Your task to perform on an android device: Show me popular videos on Youtube Image 0: 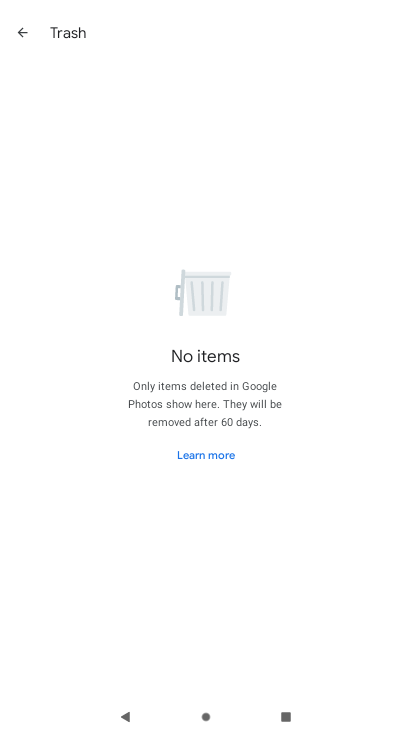
Step 0: press home button
Your task to perform on an android device: Show me popular videos on Youtube Image 1: 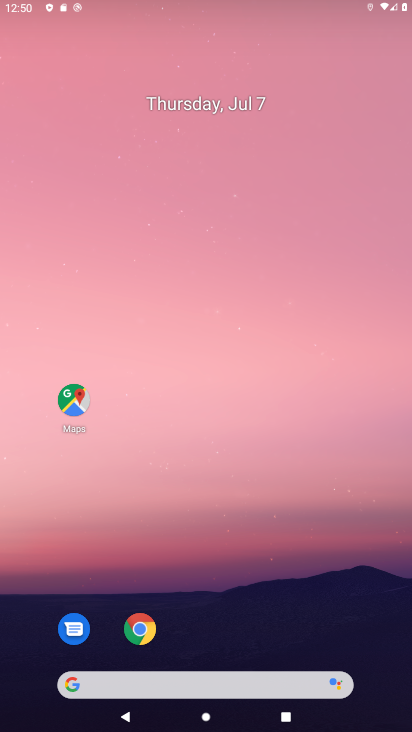
Step 1: drag from (244, 643) to (318, 109)
Your task to perform on an android device: Show me popular videos on Youtube Image 2: 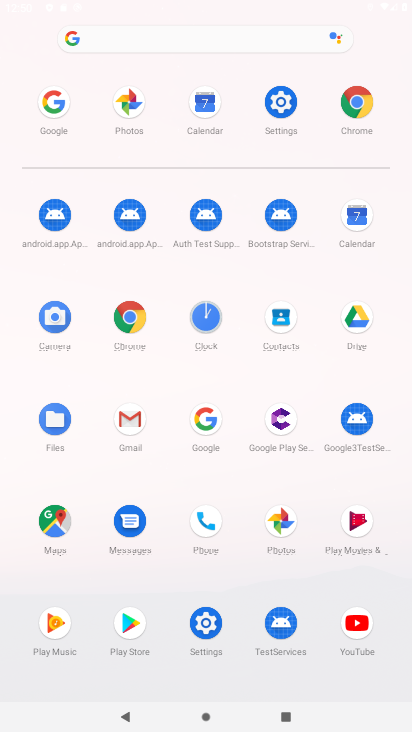
Step 2: click (347, 616)
Your task to perform on an android device: Show me popular videos on Youtube Image 3: 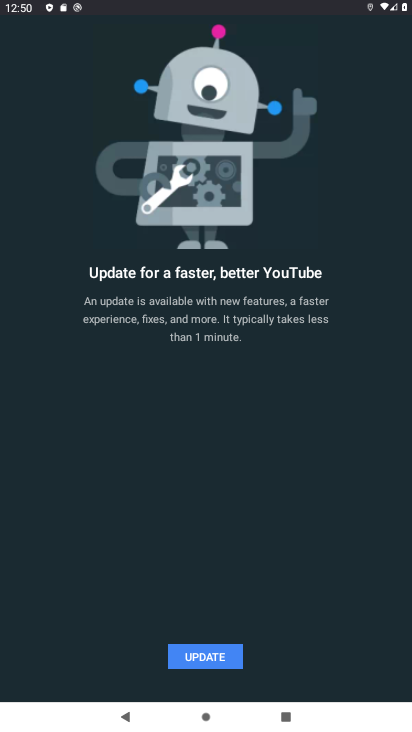
Step 3: click (208, 648)
Your task to perform on an android device: Show me popular videos on Youtube Image 4: 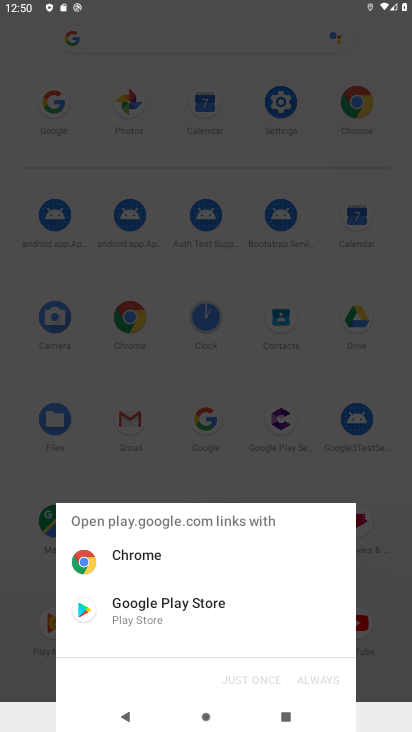
Step 4: click (151, 611)
Your task to perform on an android device: Show me popular videos on Youtube Image 5: 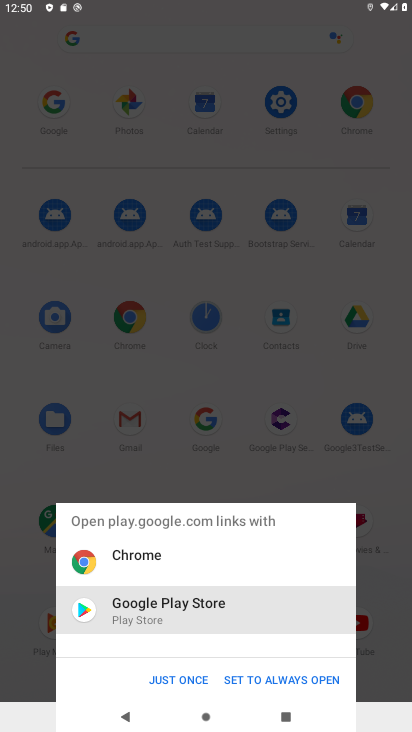
Step 5: click (194, 679)
Your task to perform on an android device: Show me popular videos on Youtube Image 6: 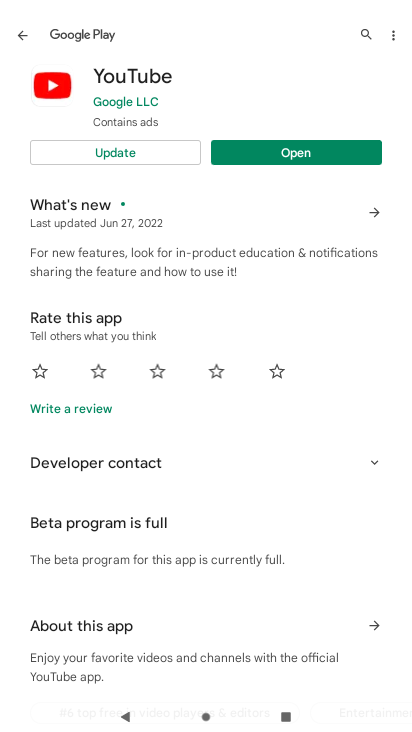
Step 6: click (140, 150)
Your task to perform on an android device: Show me popular videos on Youtube Image 7: 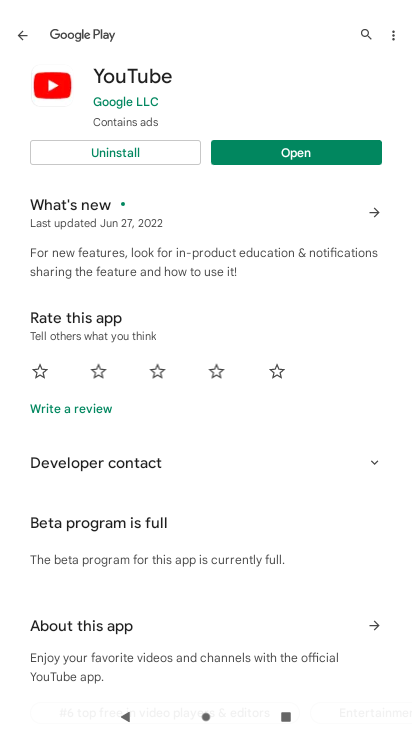
Step 7: click (305, 152)
Your task to perform on an android device: Show me popular videos on Youtube Image 8: 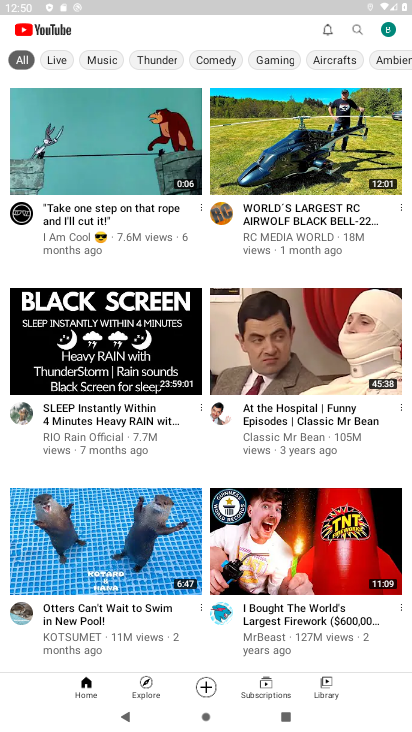
Step 8: task complete